Your task to perform on an android device: Check the weather Image 0: 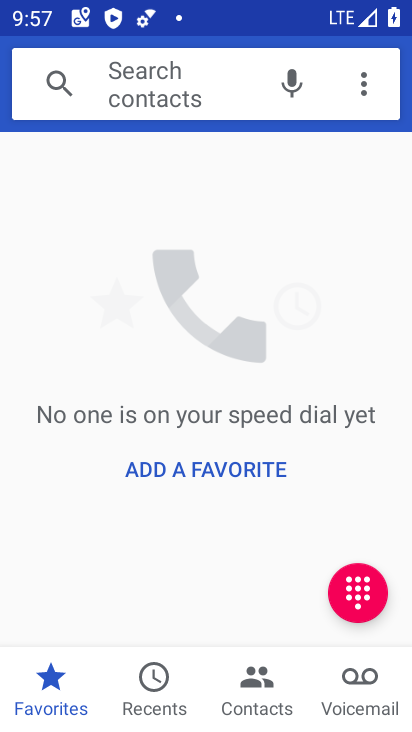
Step 0: press home button
Your task to perform on an android device: Check the weather Image 1: 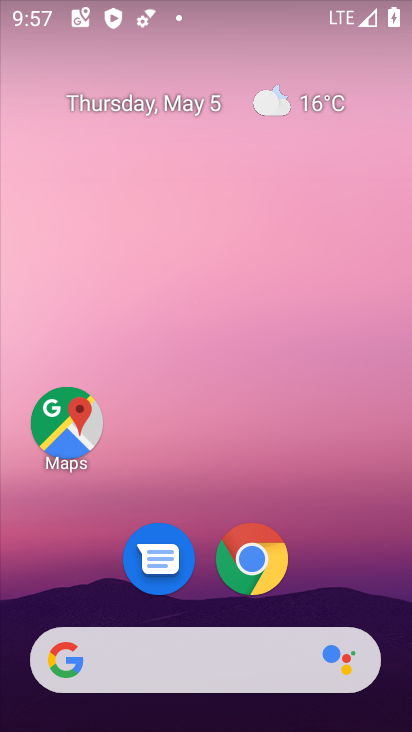
Step 1: click (202, 642)
Your task to perform on an android device: Check the weather Image 2: 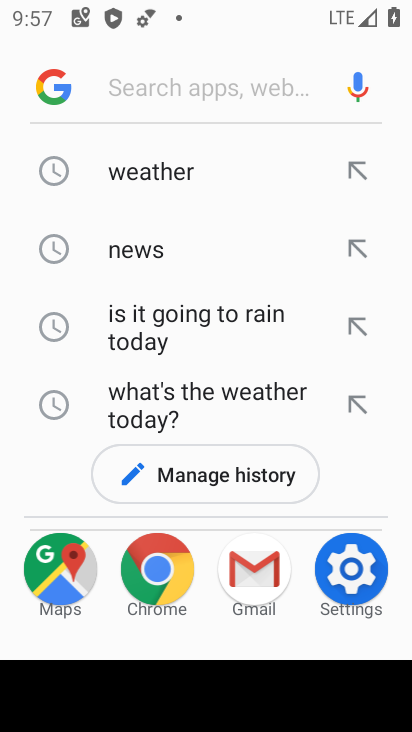
Step 2: click (163, 160)
Your task to perform on an android device: Check the weather Image 3: 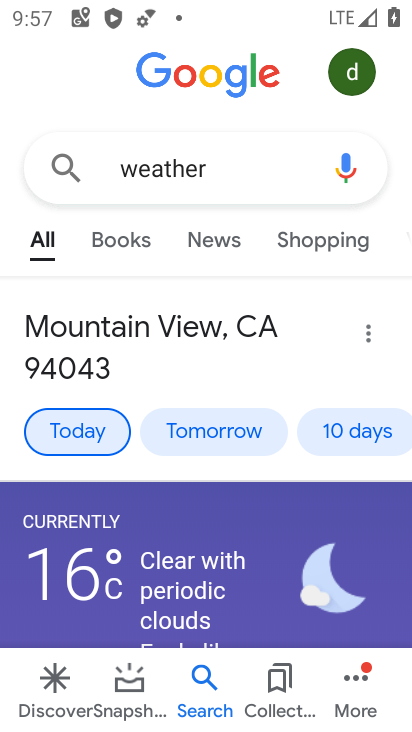
Step 3: task complete